Your task to perform on an android device: visit the assistant section in the google photos Image 0: 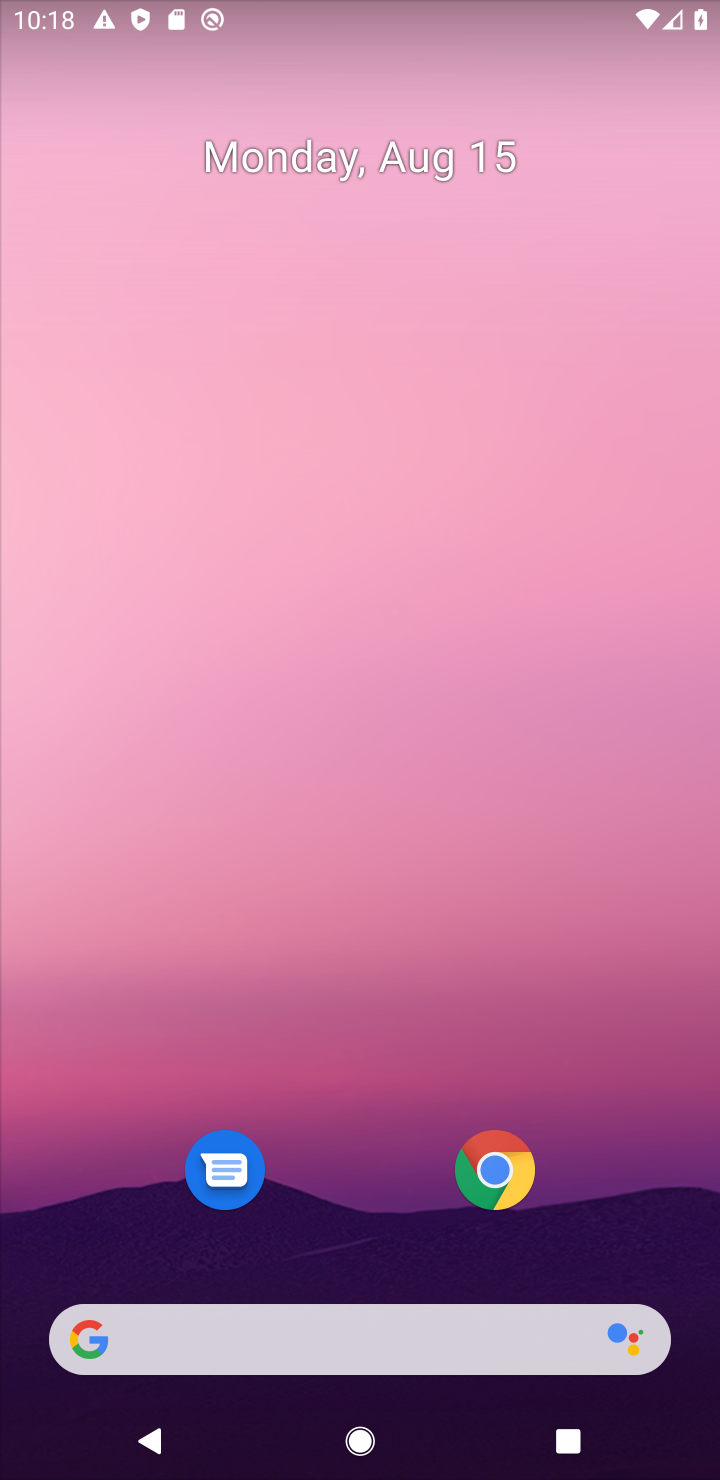
Step 0: drag from (360, 1263) to (423, 188)
Your task to perform on an android device: visit the assistant section in the google photos Image 1: 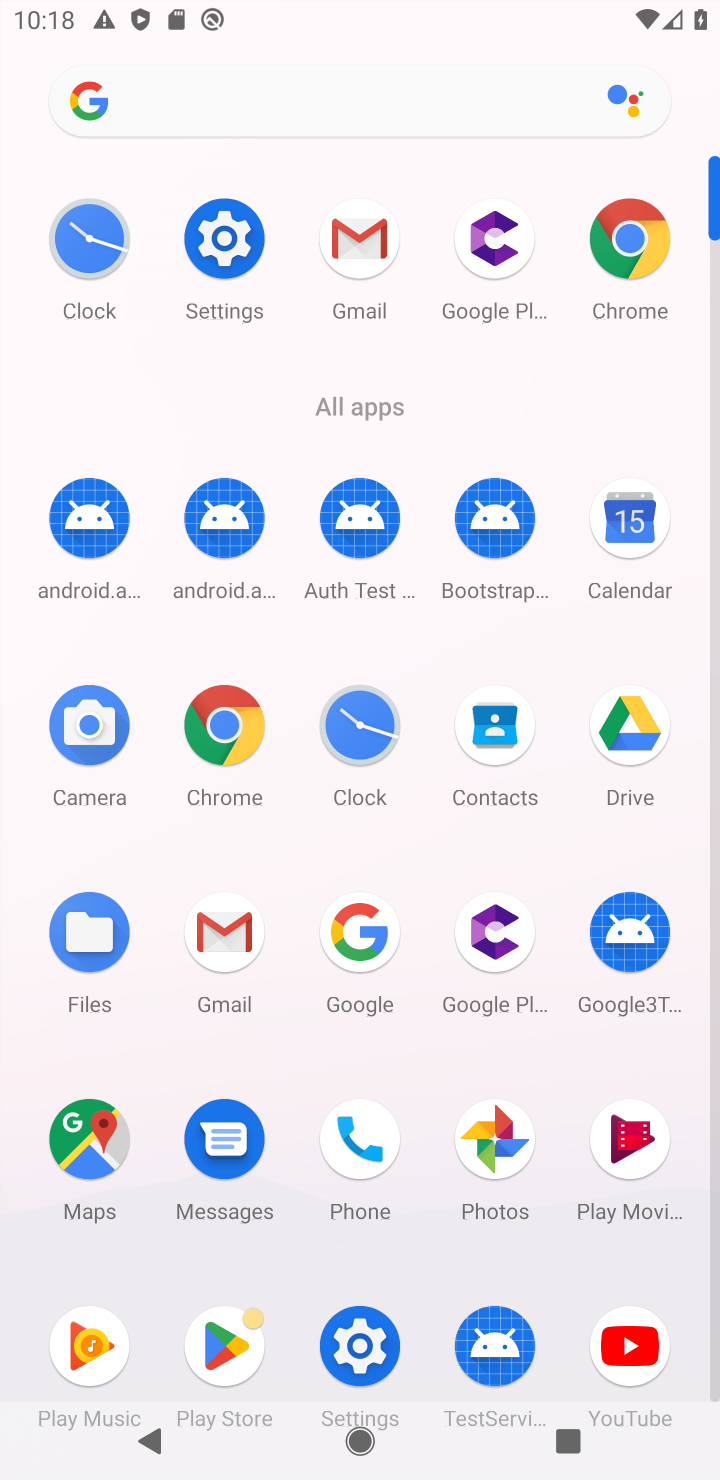
Step 1: click (504, 1127)
Your task to perform on an android device: visit the assistant section in the google photos Image 2: 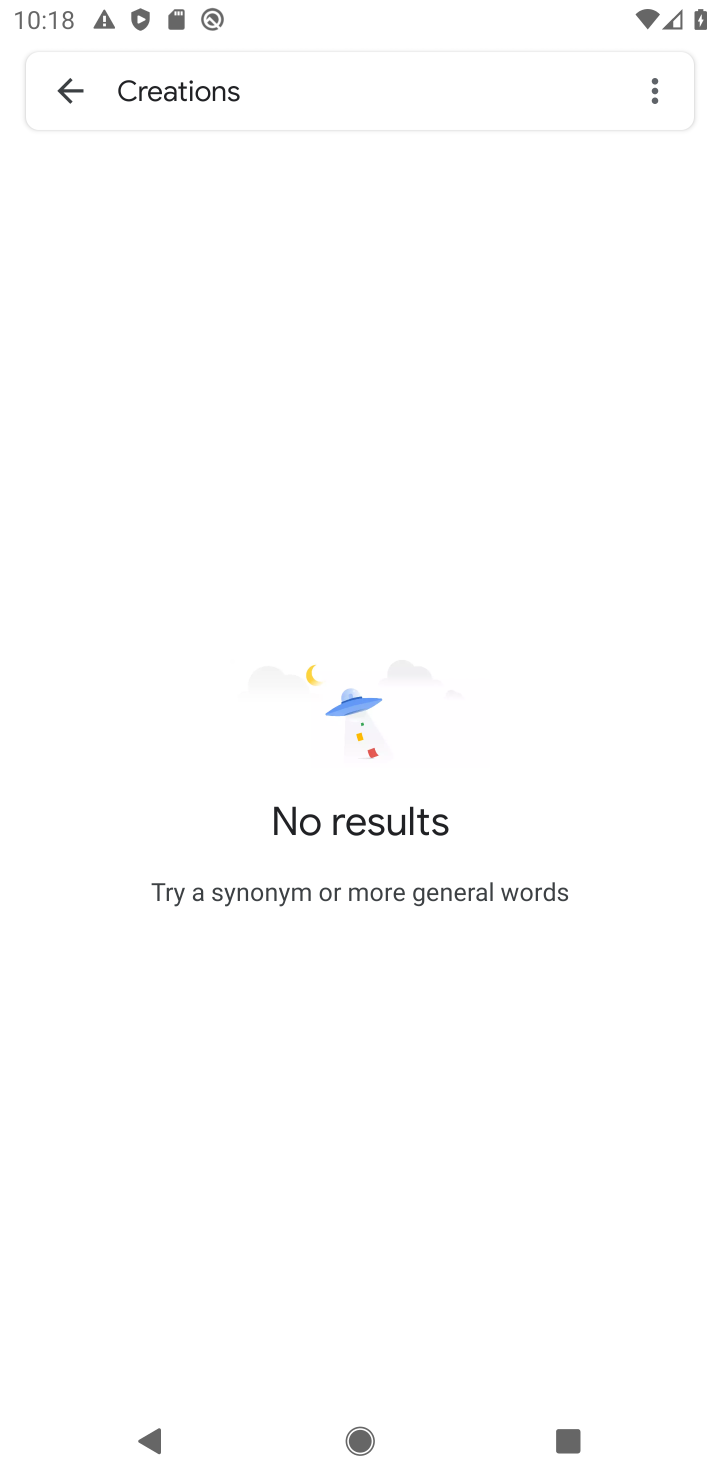
Step 2: click (61, 88)
Your task to perform on an android device: visit the assistant section in the google photos Image 3: 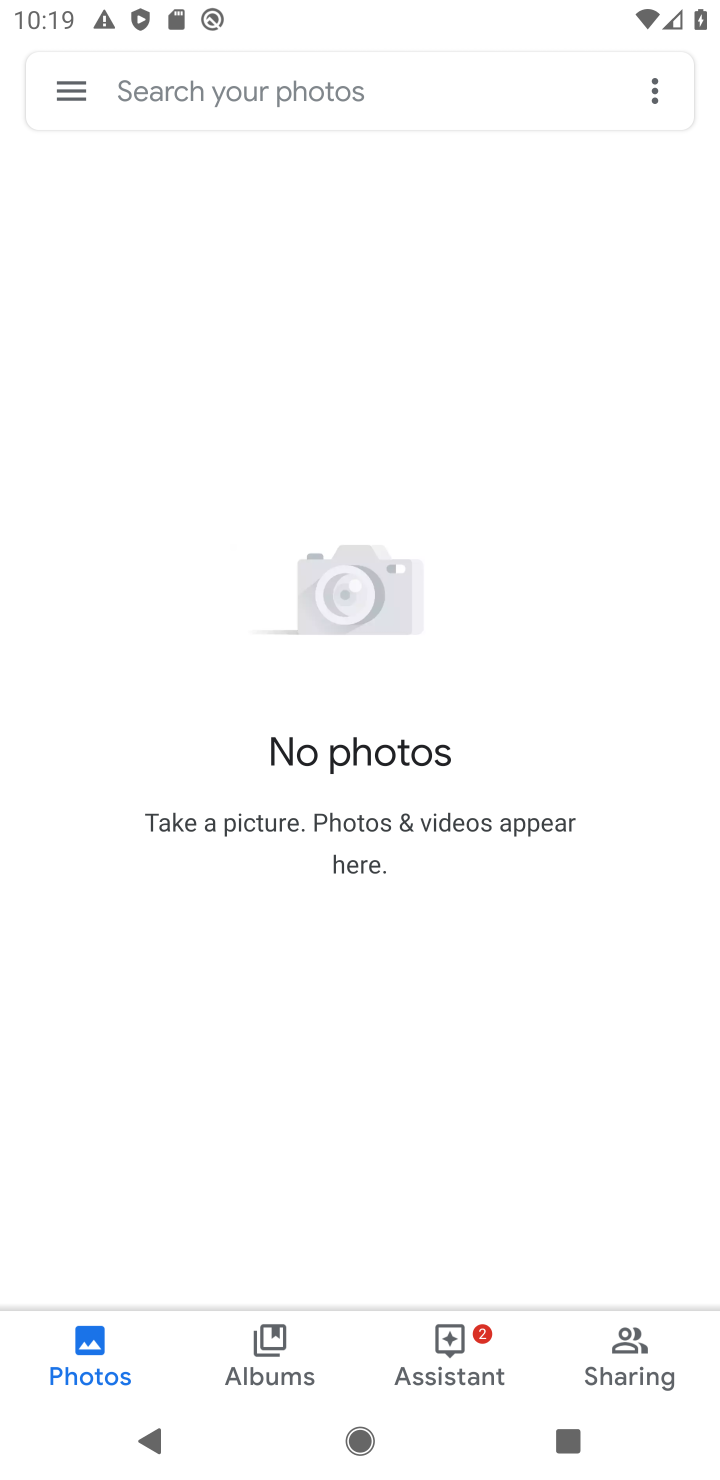
Step 3: click (457, 1341)
Your task to perform on an android device: visit the assistant section in the google photos Image 4: 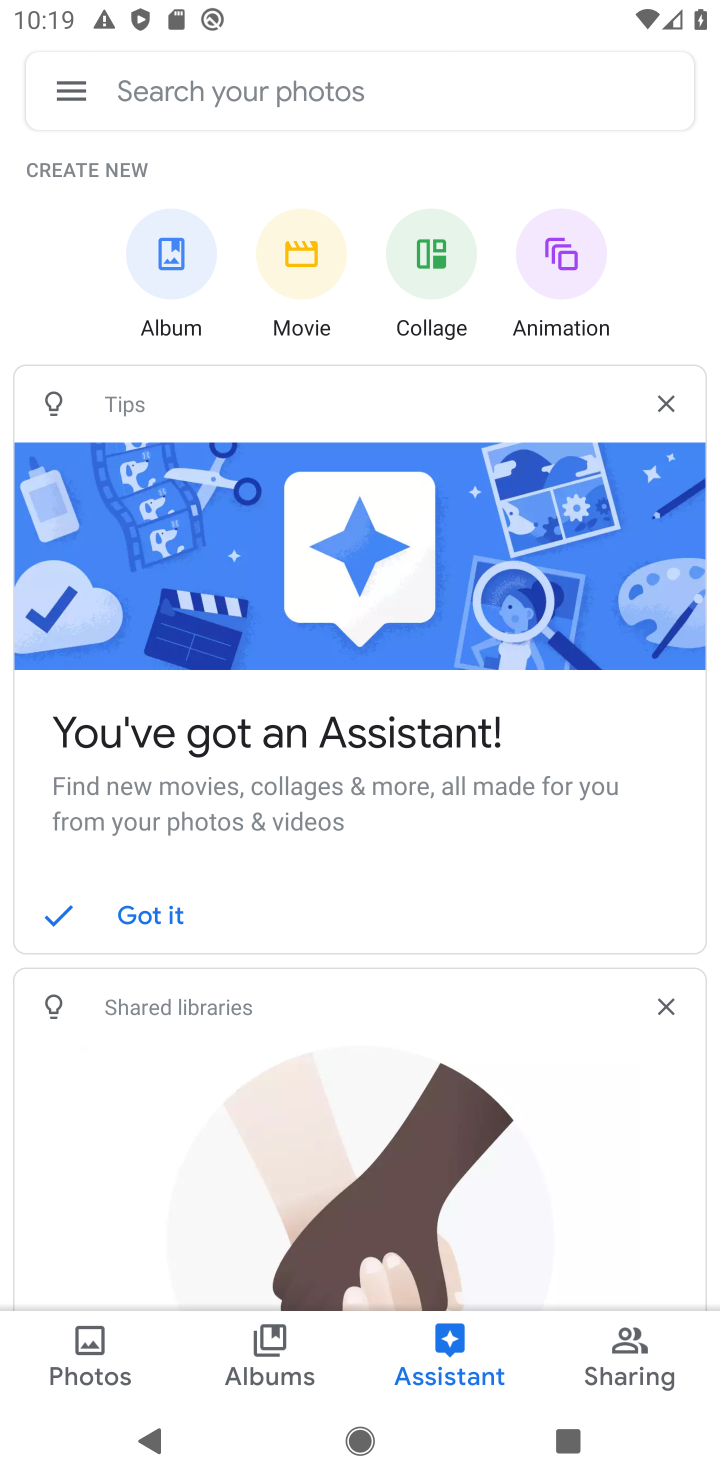
Step 4: task complete